Your task to perform on an android device: Open Google Chrome and open the bookmarks view Image 0: 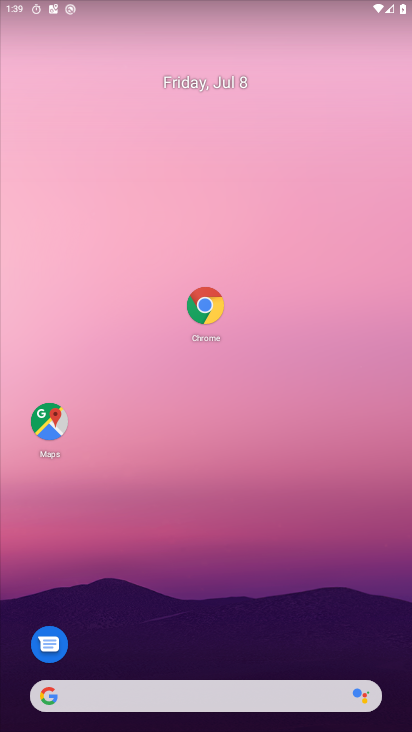
Step 0: click (199, 305)
Your task to perform on an android device: Open Google Chrome and open the bookmarks view Image 1: 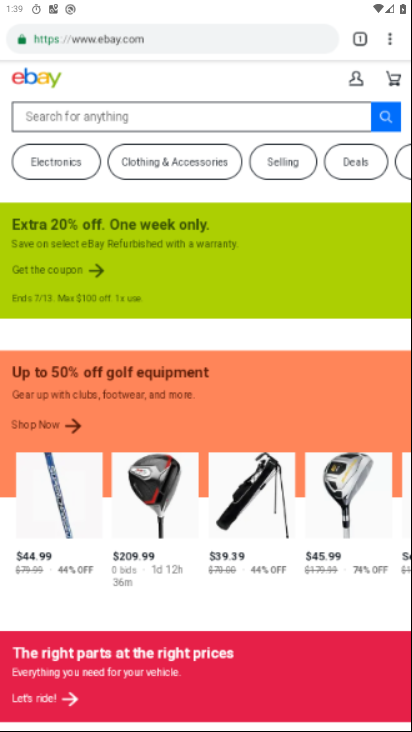
Step 1: click (381, 36)
Your task to perform on an android device: Open Google Chrome and open the bookmarks view Image 2: 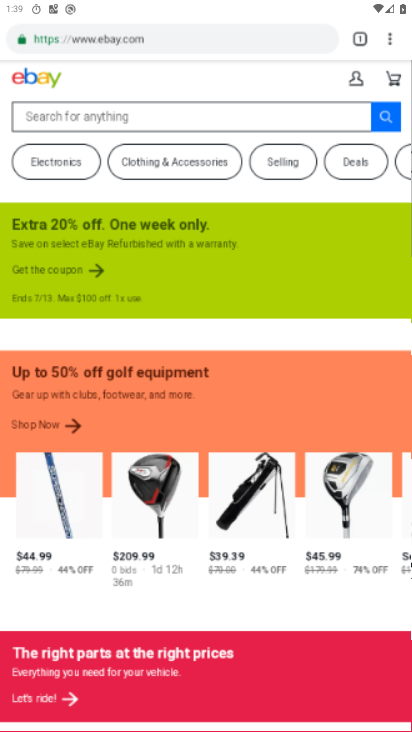
Step 2: click (388, 41)
Your task to perform on an android device: Open Google Chrome and open the bookmarks view Image 3: 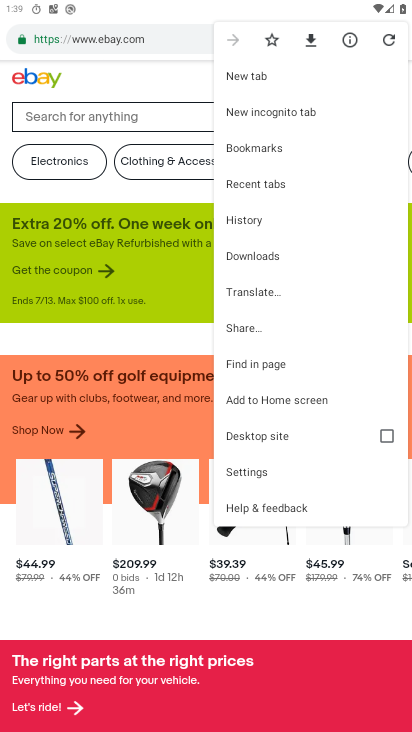
Step 3: click (259, 145)
Your task to perform on an android device: Open Google Chrome and open the bookmarks view Image 4: 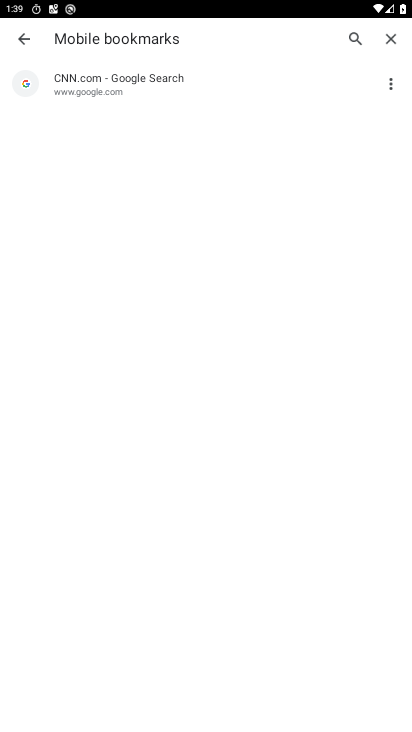
Step 4: task complete